Your task to perform on an android device: see tabs open on other devices in the chrome app Image 0: 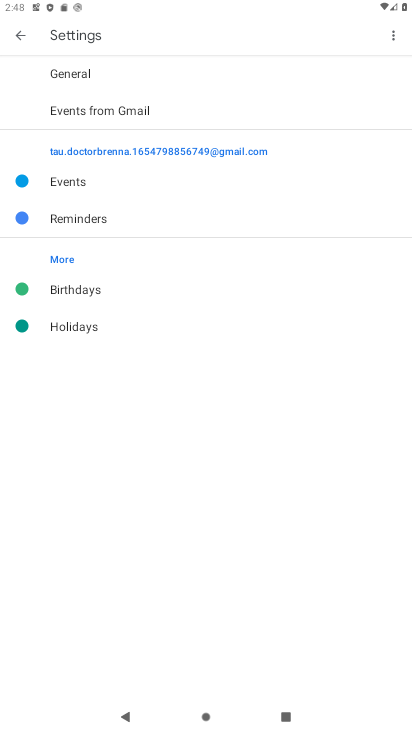
Step 0: press home button
Your task to perform on an android device: see tabs open on other devices in the chrome app Image 1: 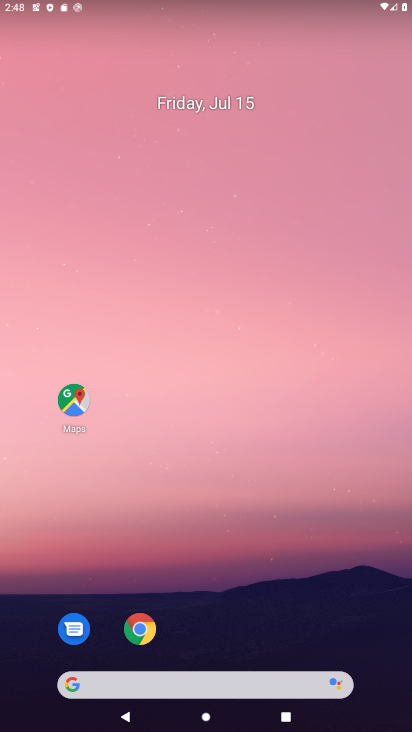
Step 1: drag from (234, 642) to (252, 2)
Your task to perform on an android device: see tabs open on other devices in the chrome app Image 2: 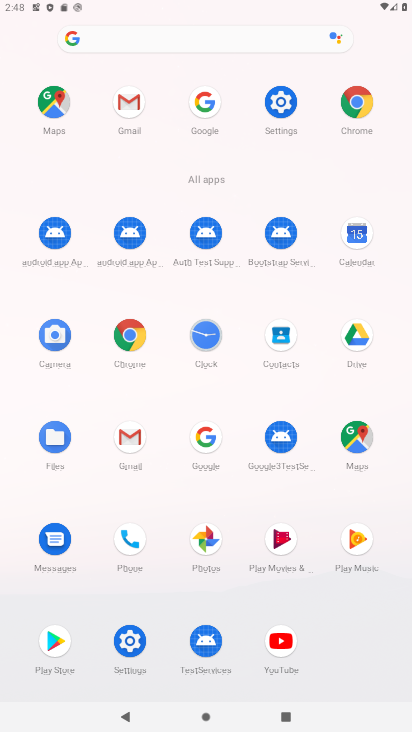
Step 2: click (133, 345)
Your task to perform on an android device: see tabs open on other devices in the chrome app Image 3: 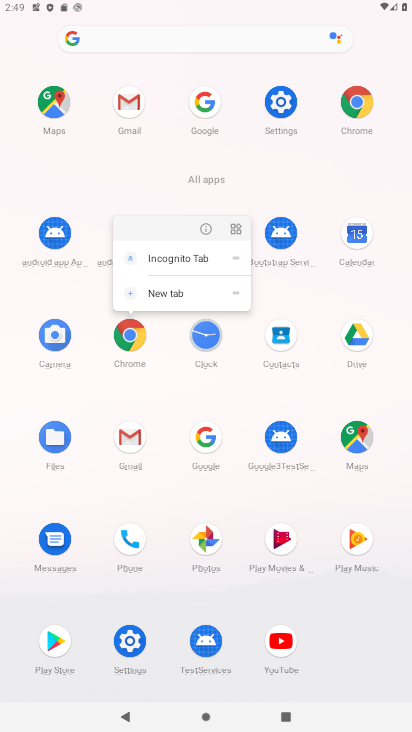
Step 3: click (131, 341)
Your task to perform on an android device: see tabs open on other devices in the chrome app Image 4: 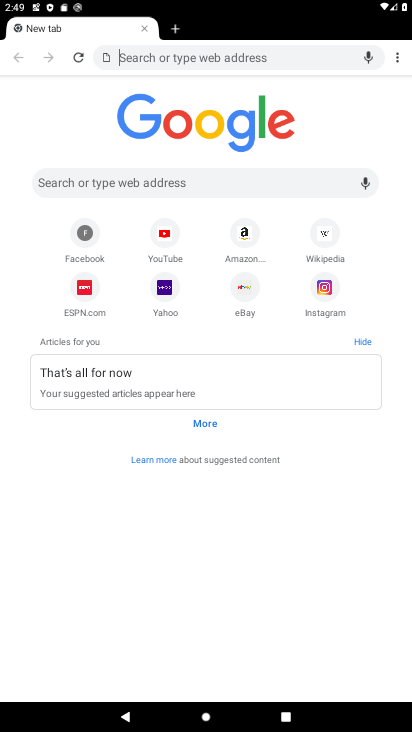
Step 4: click (173, 26)
Your task to perform on an android device: see tabs open on other devices in the chrome app Image 5: 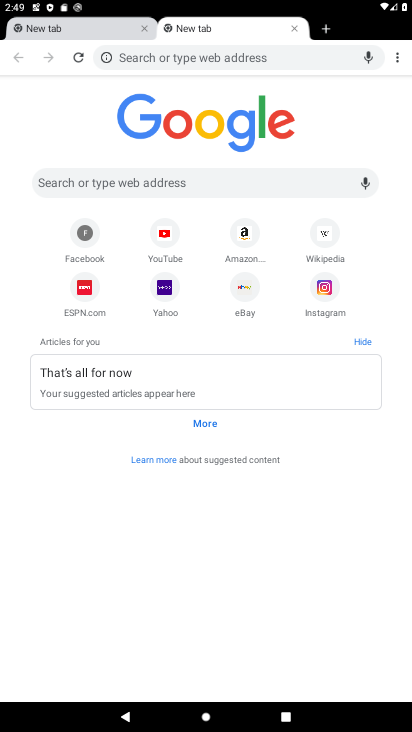
Step 5: task complete